Your task to perform on an android device: turn off notifications in google photos Image 0: 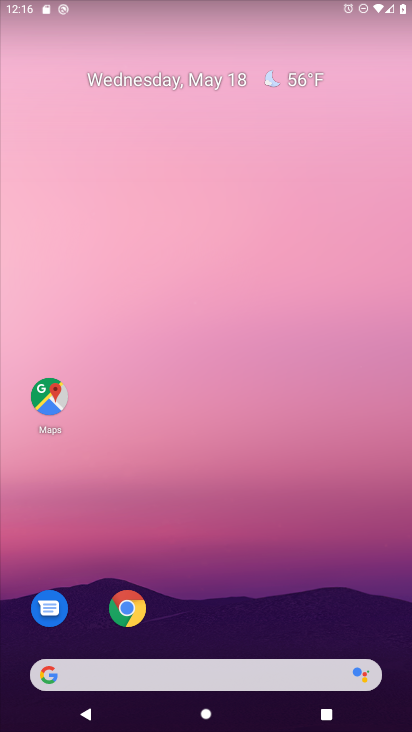
Step 0: drag from (259, 696) to (160, 191)
Your task to perform on an android device: turn off notifications in google photos Image 1: 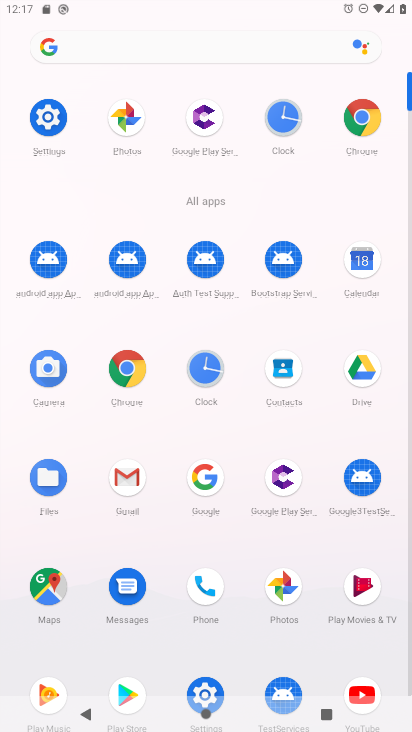
Step 1: click (282, 592)
Your task to perform on an android device: turn off notifications in google photos Image 2: 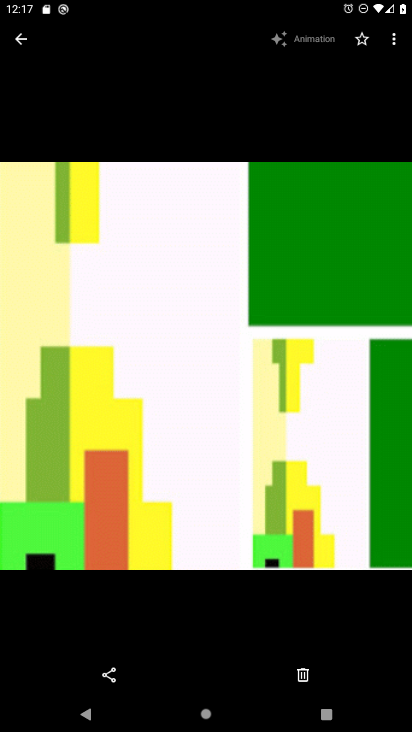
Step 2: click (26, 42)
Your task to perform on an android device: turn off notifications in google photos Image 3: 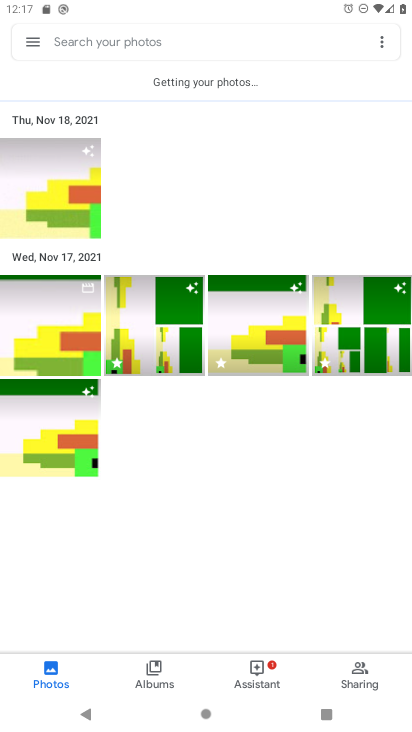
Step 3: click (26, 43)
Your task to perform on an android device: turn off notifications in google photos Image 4: 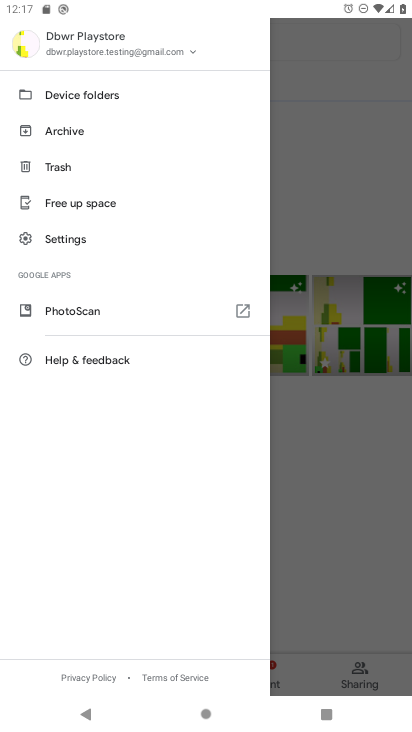
Step 4: click (84, 242)
Your task to perform on an android device: turn off notifications in google photos Image 5: 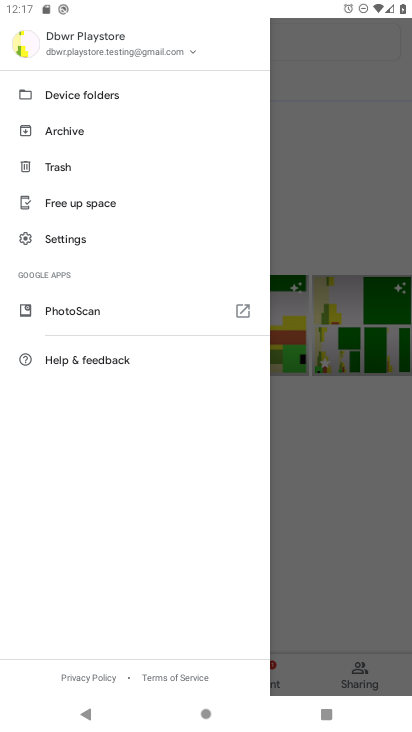
Step 5: click (68, 235)
Your task to perform on an android device: turn off notifications in google photos Image 6: 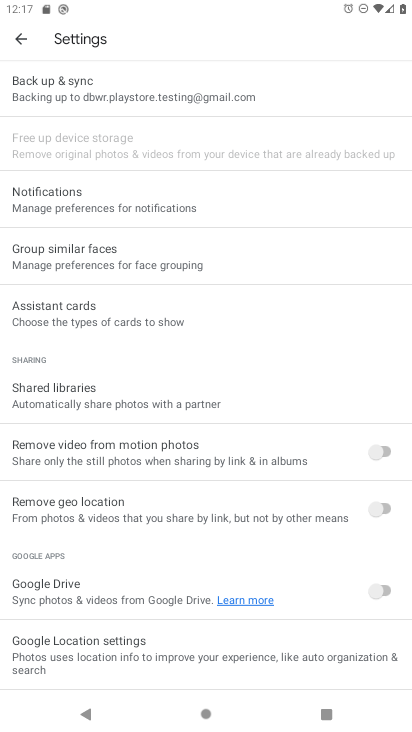
Step 6: click (111, 219)
Your task to perform on an android device: turn off notifications in google photos Image 7: 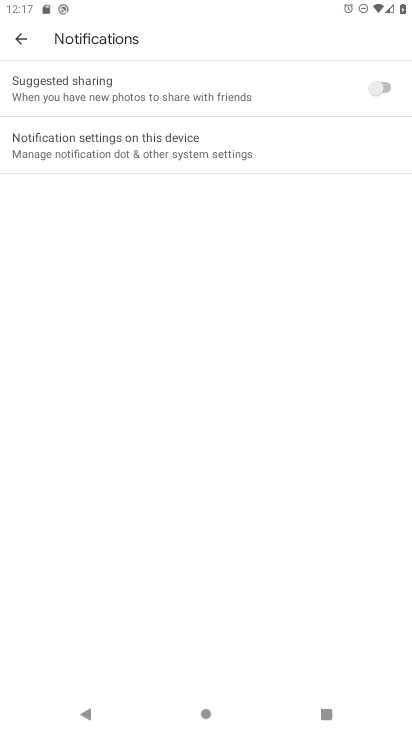
Step 7: click (136, 156)
Your task to perform on an android device: turn off notifications in google photos Image 8: 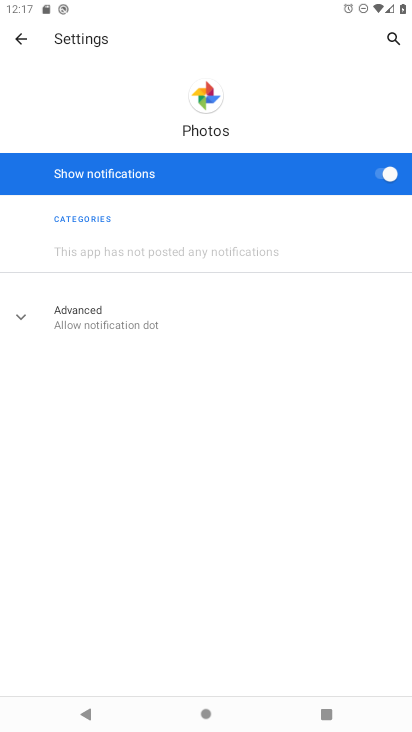
Step 8: click (390, 180)
Your task to perform on an android device: turn off notifications in google photos Image 9: 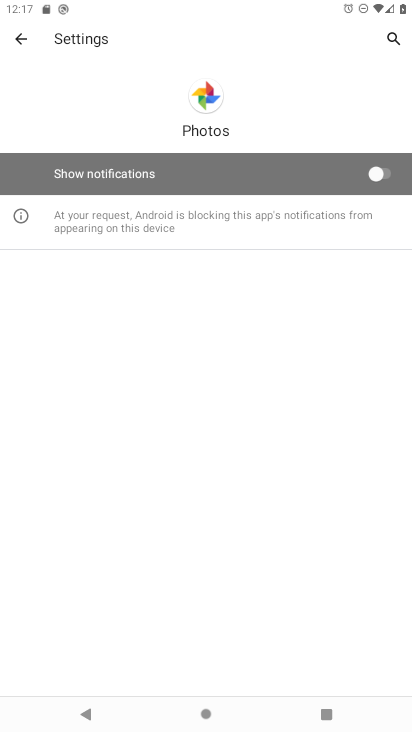
Step 9: task complete